Your task to perform on an android device: Open the phone app and click the voicemail tab. Image 0: 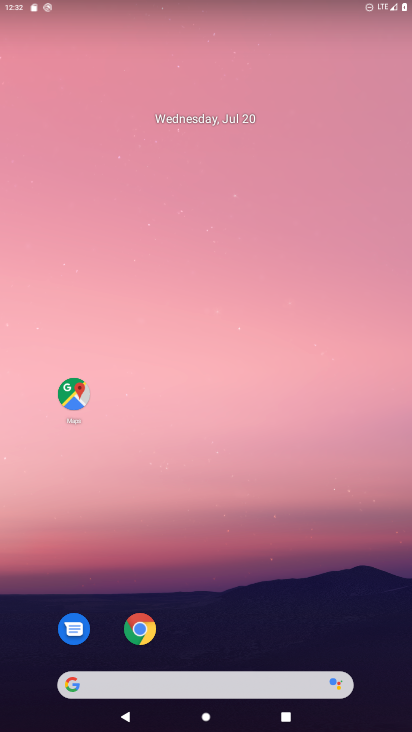
Step 0: drag from (167, 617) to (185, 172)
Your task to perform on an android device: Open the phone app and click the voicemail tab. Image 1: 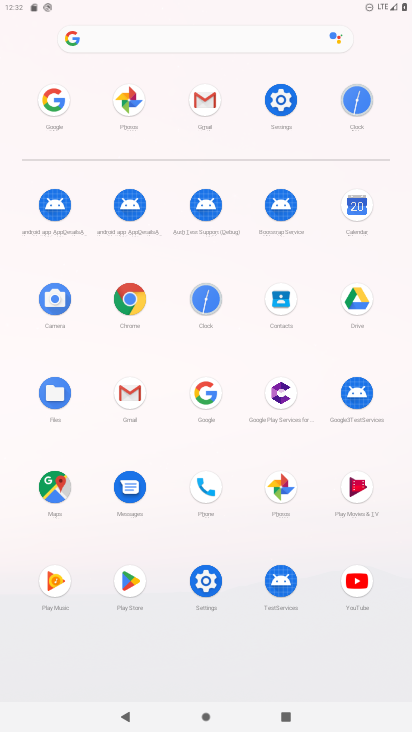
Step 1: click (208, 486)
Your task to perform on an android device: Open the phone app and click the voicemail tab. Image 2: 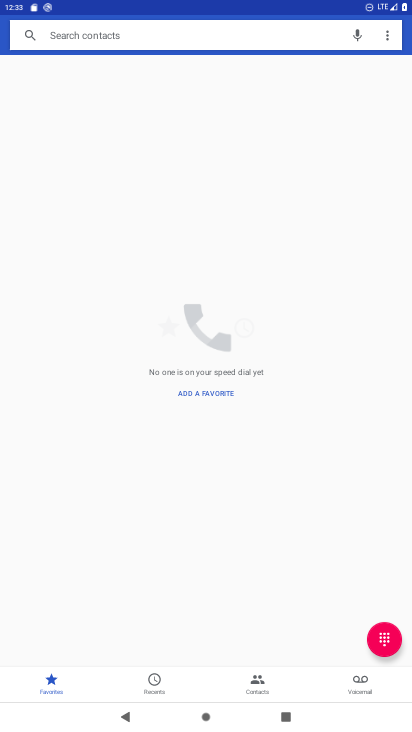
Step 2: click (358, 676)
Your task to perform on an android device: Open the phone app and click the voicemail tab. Image 3: 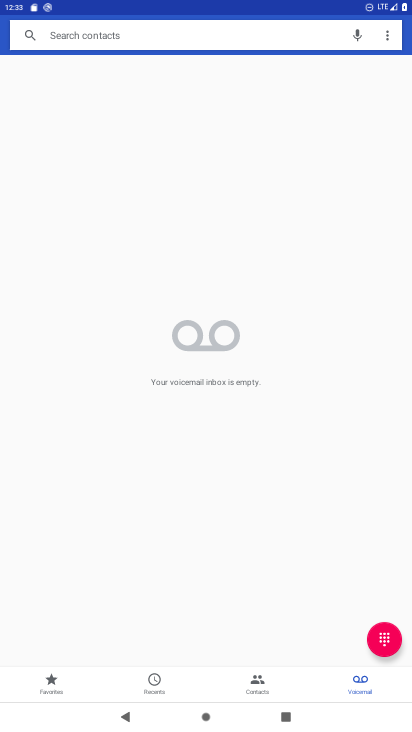
Step 3: task complete